Your task to perform on an android device: remove spam from my inbox in the gmail app Image 0: 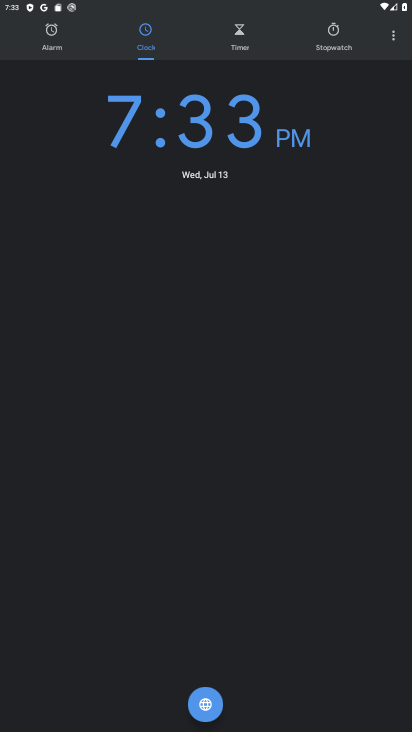
Step 0: press home button
Your task to perform on an android device: remove spam from my inbox in the gmail app Image 1: 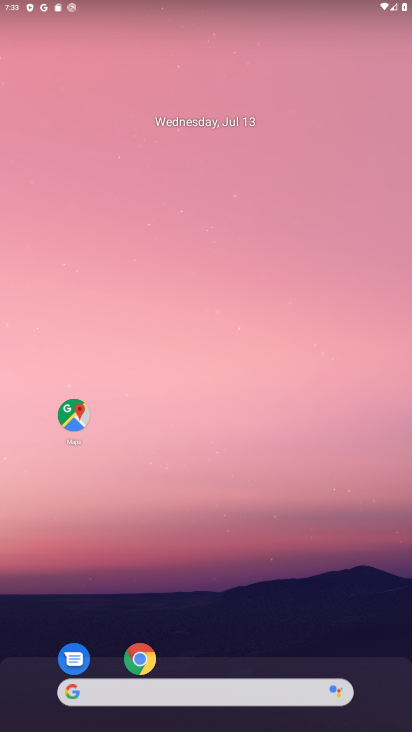
Step 1: drag from (213, 674) to (223, 130)
Your task to perform on an android device: remove spam from my inbox in the gmail app Image 2: 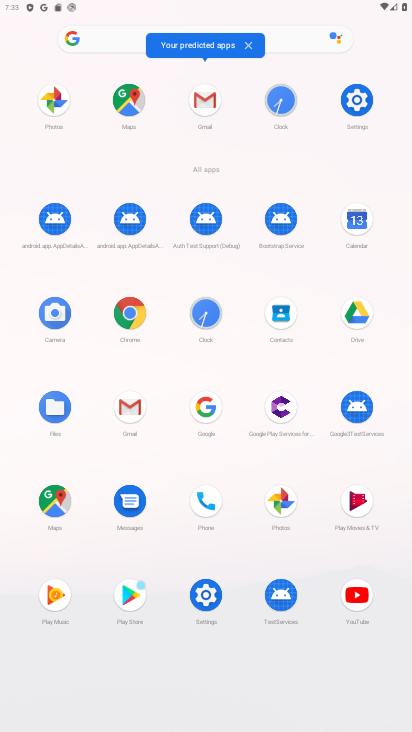
Step 2: click (208, 124)
Your task to perform on an android device: remove spam from my inbox in the gmail app Image 3: 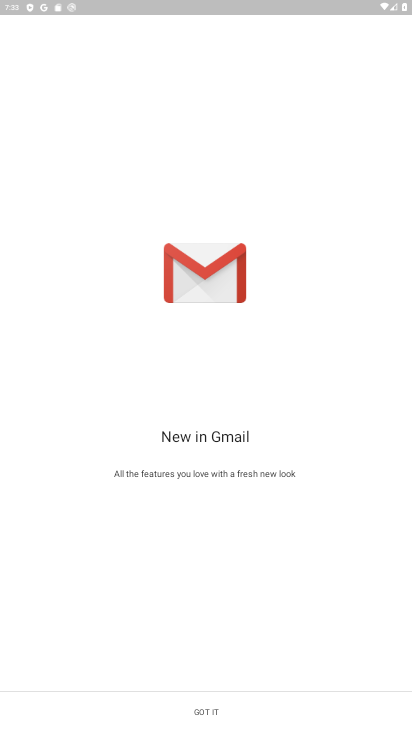
Step 3: click (310, 697)
Your task to perform on an android device: remove spam from my inbox in the gmail app Image 4: 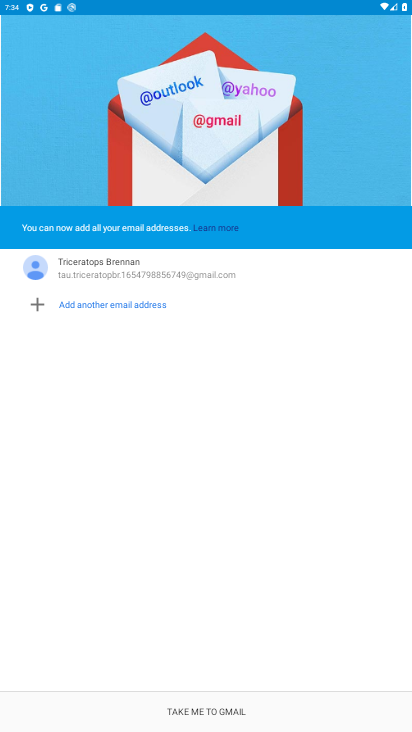
Step 4: click (310, 697)
Your task to perform on an android device: remove spam from my inbox in the gmail app Image 5: 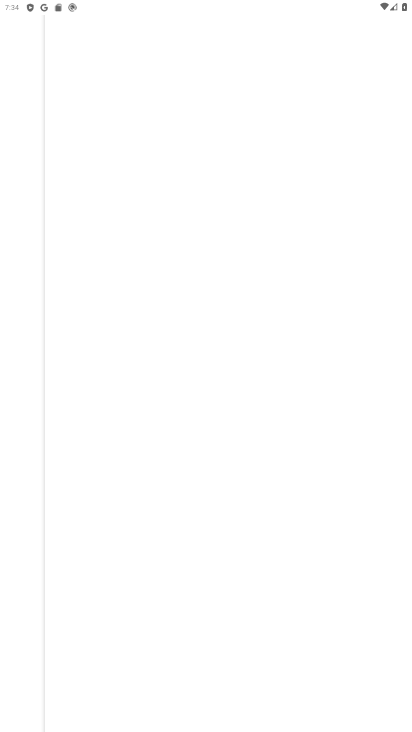
Step 5: click (310, 697)
Your task to perform on an android device: remove spam from my inbox in the gmail app Image 6: 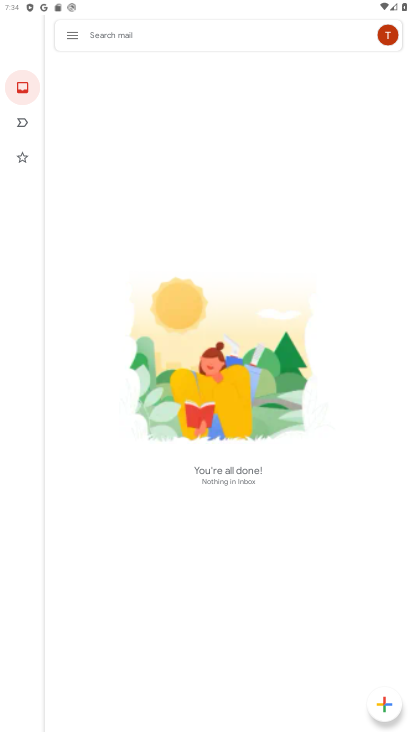
Step 6: click (29, 89)
Your task to perform on an android device: remove spam from my inbox in the gmail app Image 7: 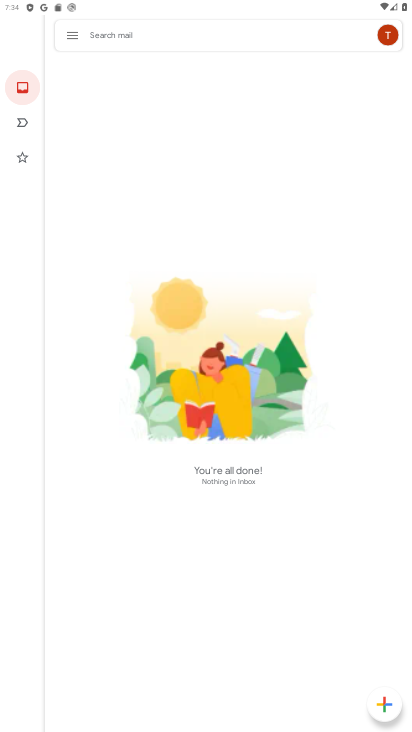
Step 7: click (78, 32)
Your task to perform on an android device: remove spam from my inbox in the gmail app Image 8: 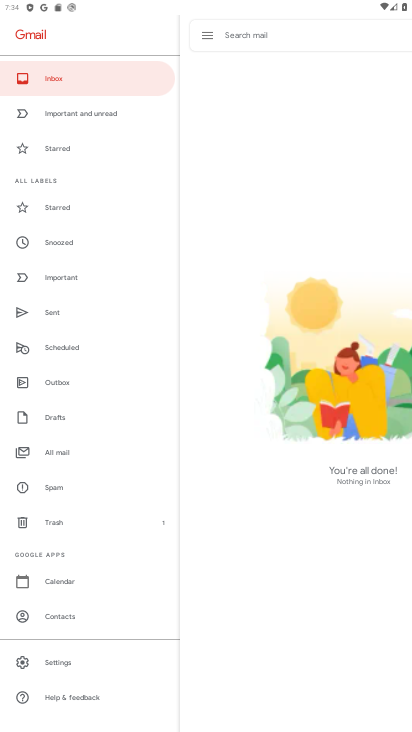
Step 8: task complete